Your task to perform on an android device: turn off data saver in the chrome app Image 0: 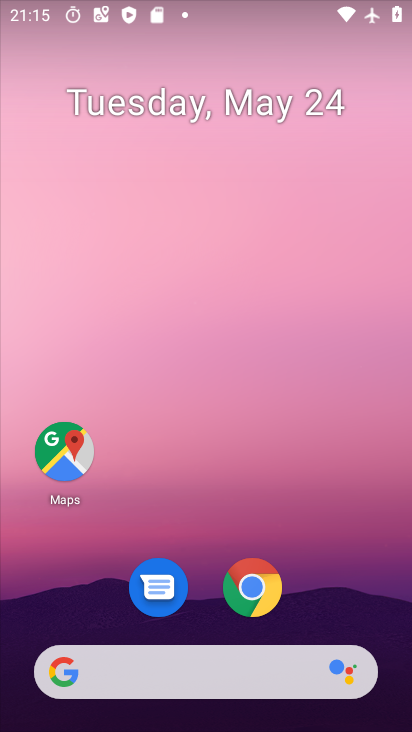
Step 0: drag from (316, 585) to (231, 53)
Your task to perform on an android device: turn off data saver in the chrome app Image 1: 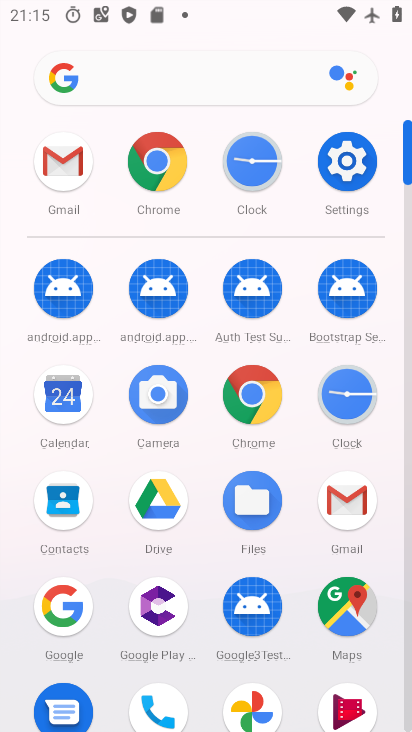
Step 1: click (251, 391)
Your task to perform on an android device: turn off data saver in the chrome app Image 2: 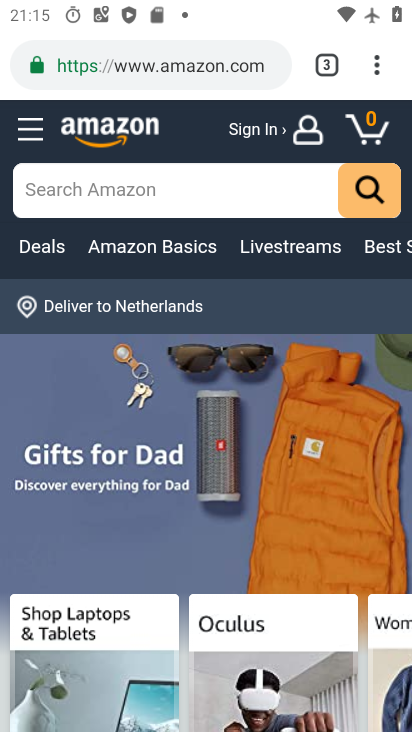
Step 2: drag from (373, 65) to (171, 625)
Your task to perform on an android device: turn off data saver in the chrome app Image 3: 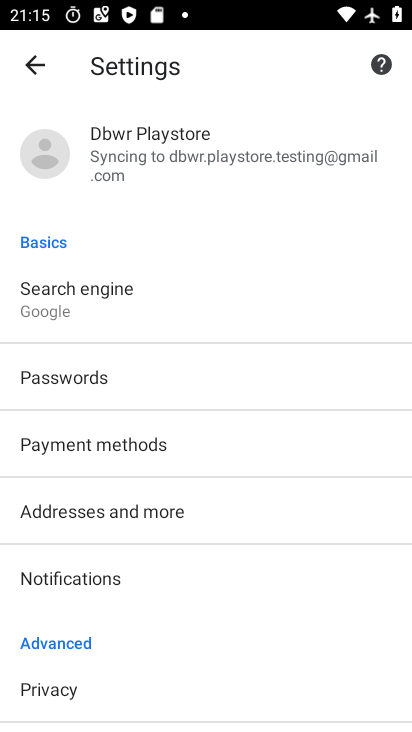
Step 3: drag from (226, 643) to (267, 300)
Your task to perform on an android device: turn off data saver in the chrome app Image 4: 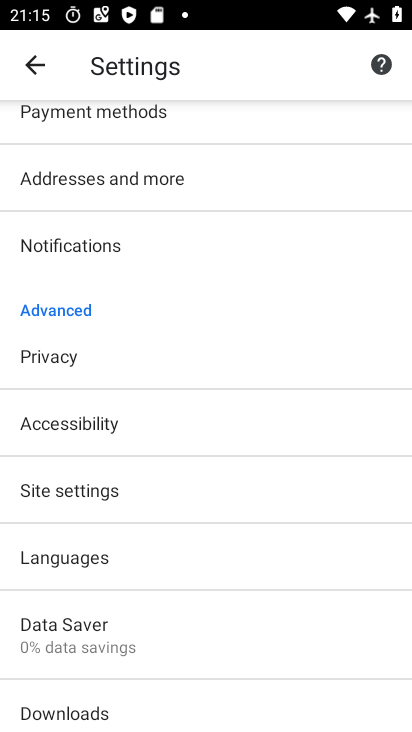
Step 4: click (104, 633)
Your task to perform on an android device: turn off data saver in the chrome app Image 5: 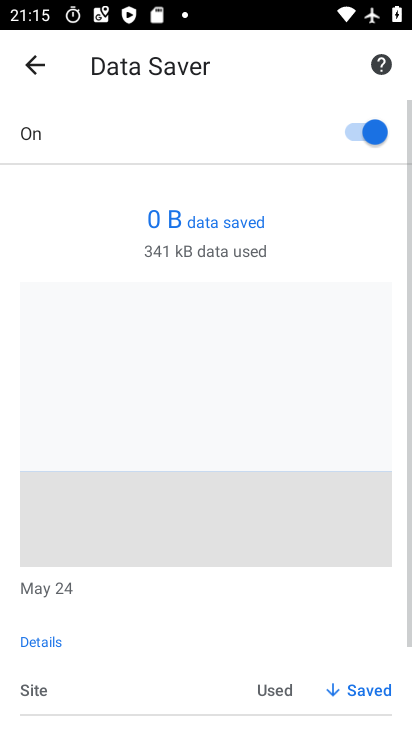
Step 5: click (360, 121)
Your task to perform on an android device: turn off data saver in the chrome app Image 6: 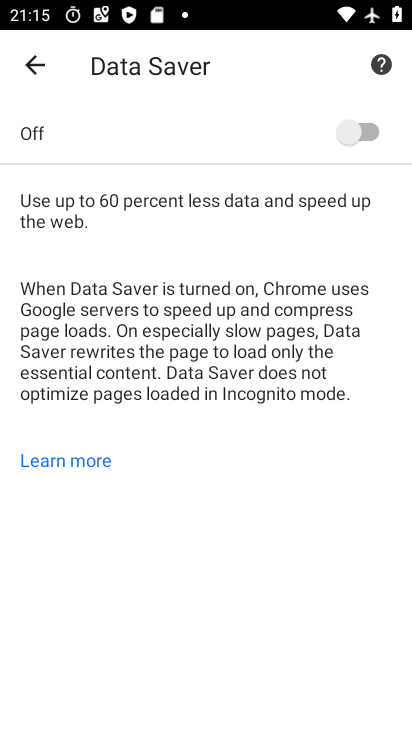
Step 6: task complete